Your task to perform on an android device: turn on priority inbox in the gmail app Image 0: 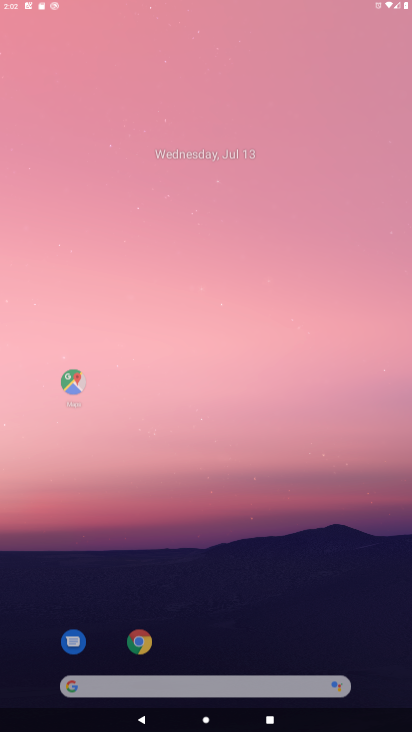
Step 0: press home button
Your task to perform on an android device: turn on priority inbox in the gmail app Image 1: 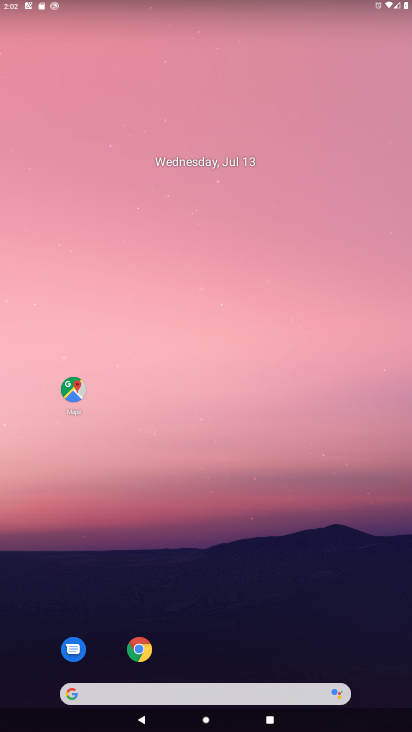
Step 1: drag from (261, 657) to (245, 549)
Your task to perform on an android device: turn on priority inbox in the gmail app Image 2: 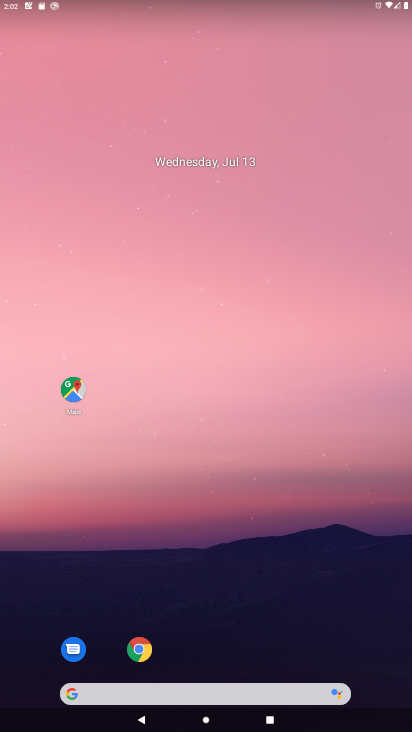
Step 2: drag from (242, 281) to (256, 65)
Your task to perform on an android device: turn on priority inbox in the gmail app Image 3: 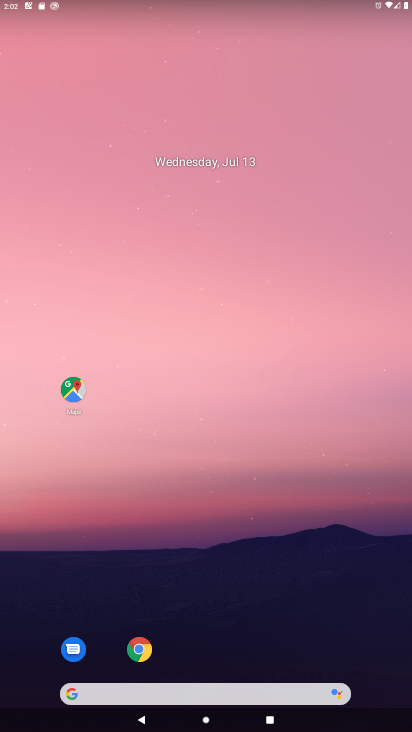
Step 3: drag from (364, 664) to (265, 7)
Your task to perform on an android device: turn on priority inbox in the gmail app Image 4: 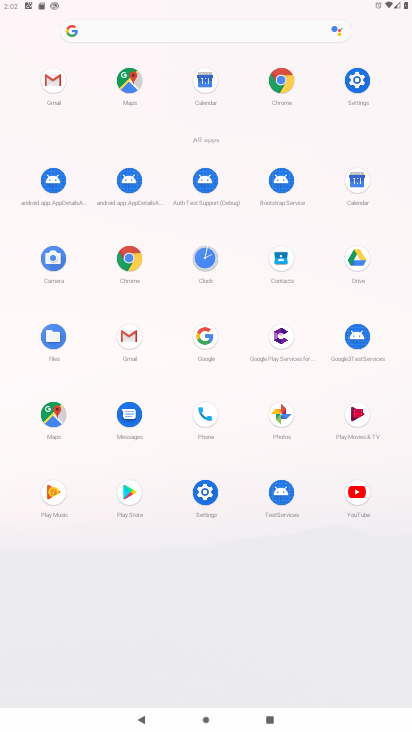
Step 4: click (119, 329)
Your task to perform on an android device: turn on priority inbox in the gmail app Image 5: 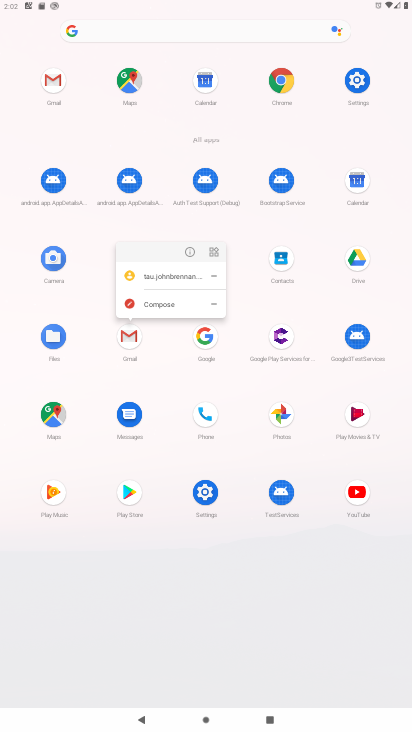
Step 5: click (127, 334)
Your task to perform on an android device: turn on priority inbox in the gmail app Image 6: 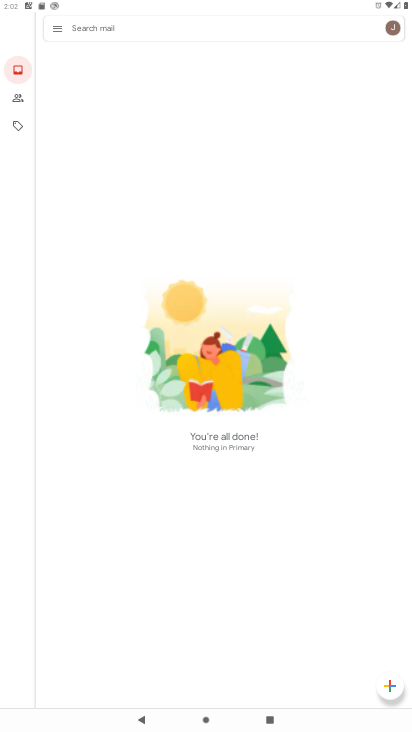
Step 6: click (64, 32)
Your task to perform on an android device: turn on priority inbox in the gmail app Image 7: 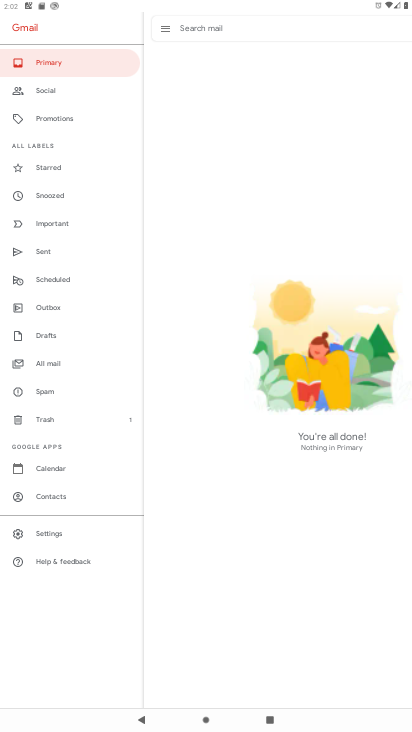
Step 7: click (29, 539)
Your task to perform on an android device: turn on priority inbox in the gmail app Image 8: 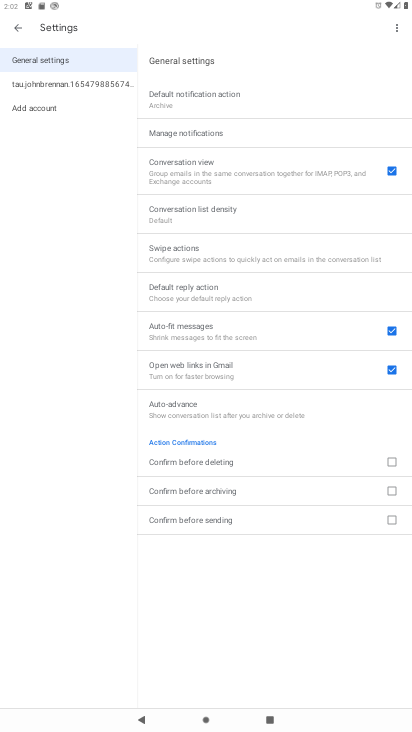
Step 8: click (53, 85)
Your task to perform on an android device: turn on priority inbox in the gmail app Image 9: 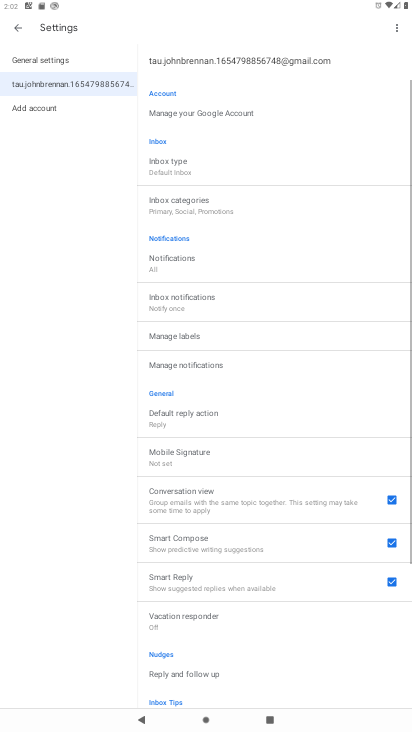
Step 9: click (164, 167)
Your task to perform on an android device: turn on priority inbox in the gmail app Image 10: 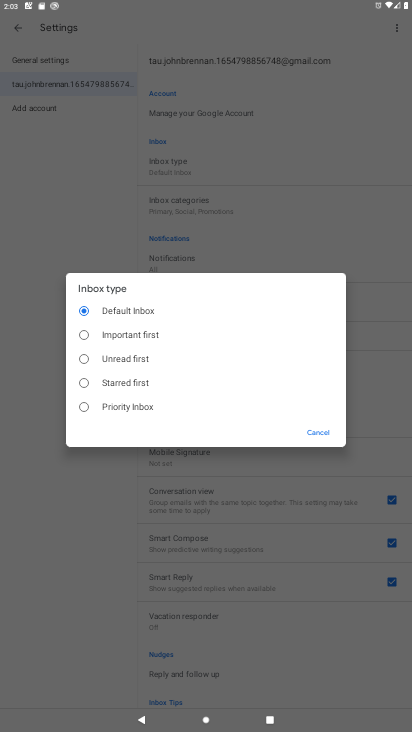
Step 10: click (98, 393)
Your task to perform on an android device: turn on priority inbox in the gmail app Image 11: 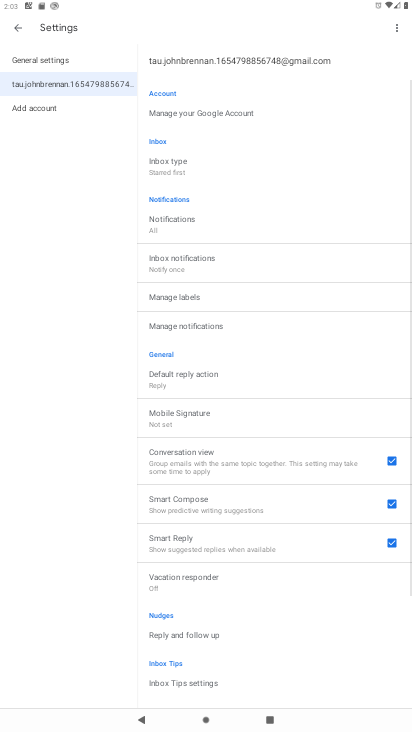
Step 11: click (187, 166)
Your task to perform on an android device: turn on priority inbox in the gmail app Image 12: 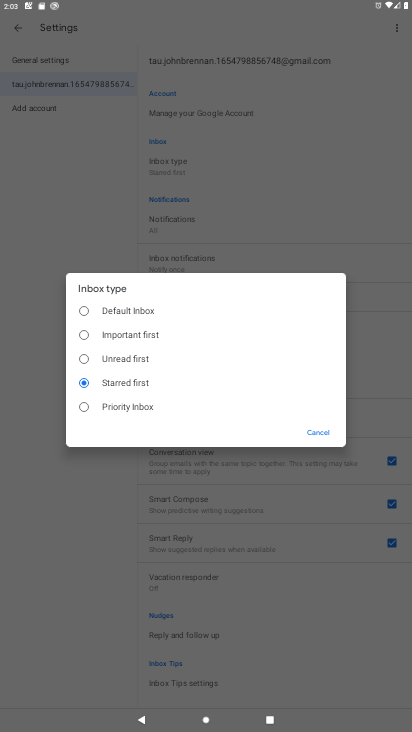
Step 12: click (95, 410)
Your task to perform on an android device: turn on priority inbox in the gmail app Image 13: 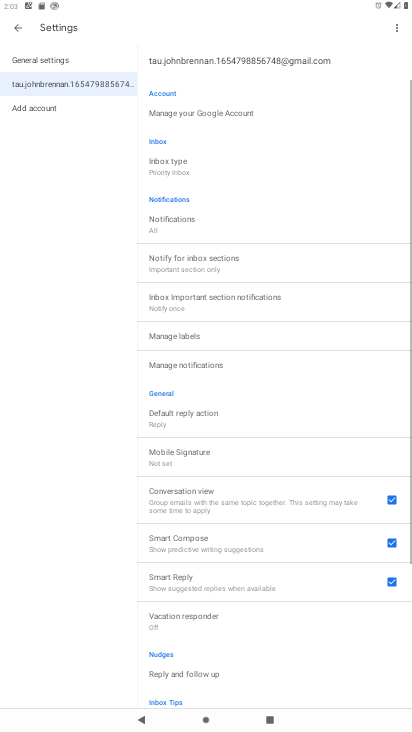
Step 13: task complete